Your task to perform on an android device: open a new tab in the chrome app Image 0: 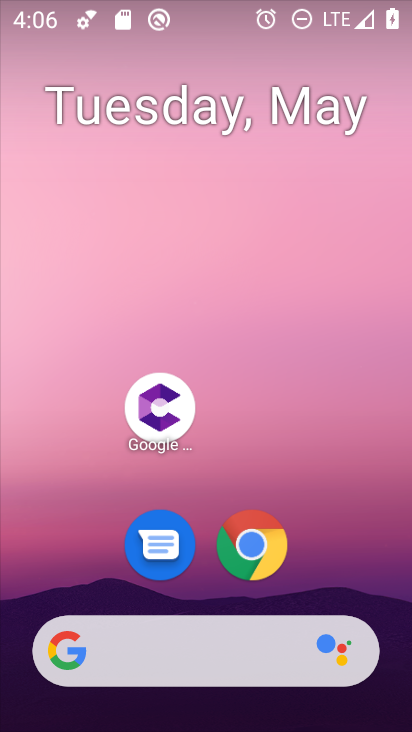
Step 0: drag from (348, 574) to (347, 135)
Your task to perform on an android device: open a new tab in the chrome app Image 1: 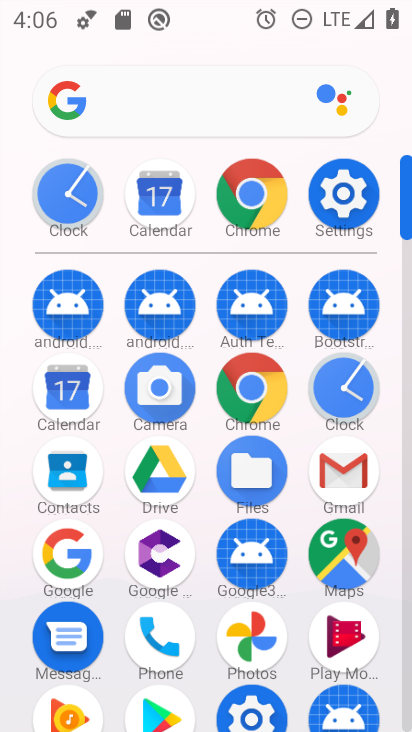
Step 1: click (248, 407)
Your task to perform on an android device: open a new tab in the chrome app Image 2: 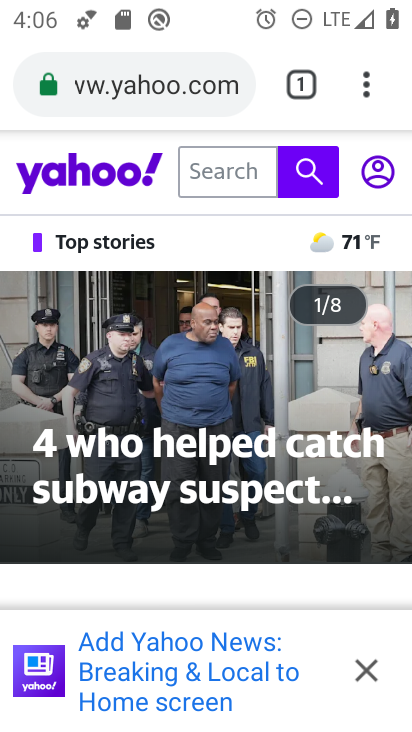
Step 2: click (365, 94)
Your task to perform on an android device: open a new tab in the chrome app Image 3: 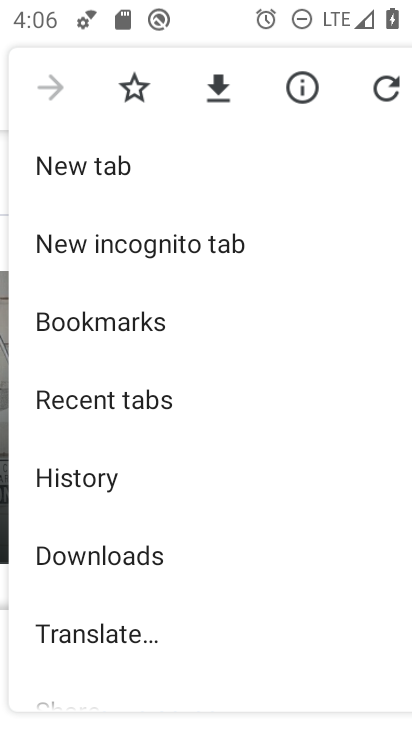
Step 3: drag from (300, 485) to (324, 362)
Your task to perform on an android device: open a new tab in the chrome app Image 4: 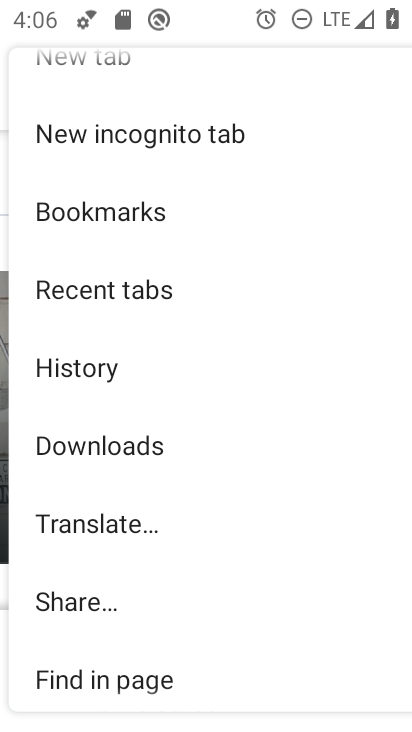
Step 4: drag from (294, 569) to (295, 482)
Your task to perform on an android device: open a new tab in the chrome app Image 5: 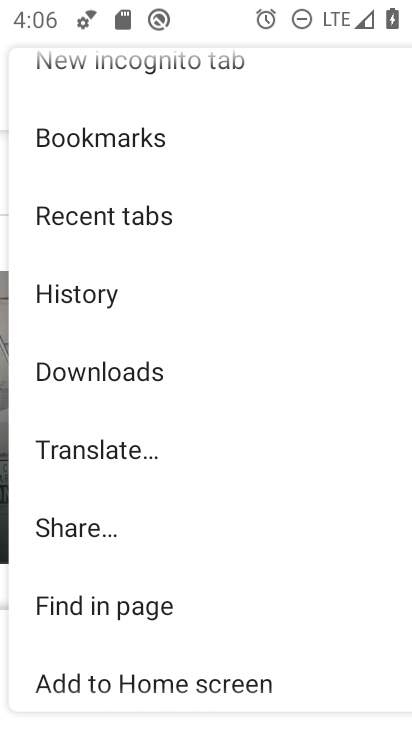
Step 5: drag from (269, 527) to (300, 404)
Your task to perform on an android device: open a new tab in the chrome app Image 6: 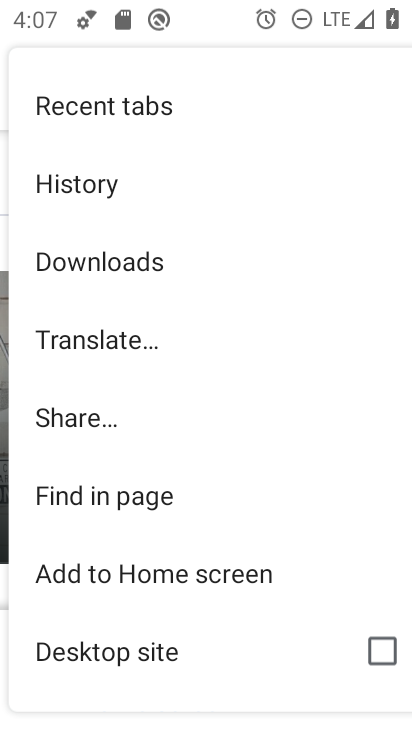
Step 6: drag from (295, 481) to (291, 379)
Your task to perform on an android device: open a new tab in the chrome app Image 7: 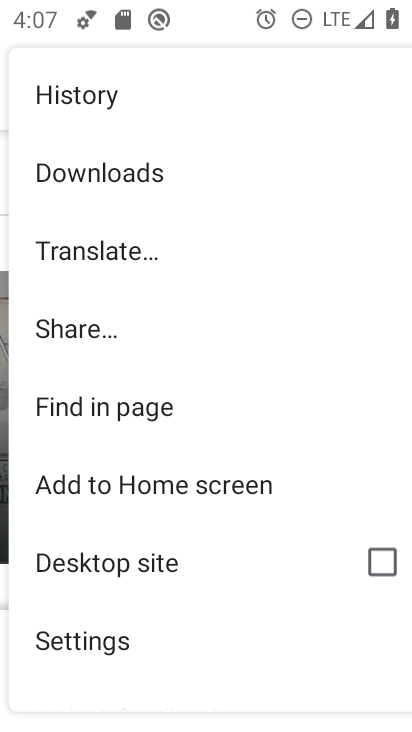
Step 7: drag from (318, 274) to (333, 481)
Your task to perform on an android device: open a new tab in the chrome app Image 8: 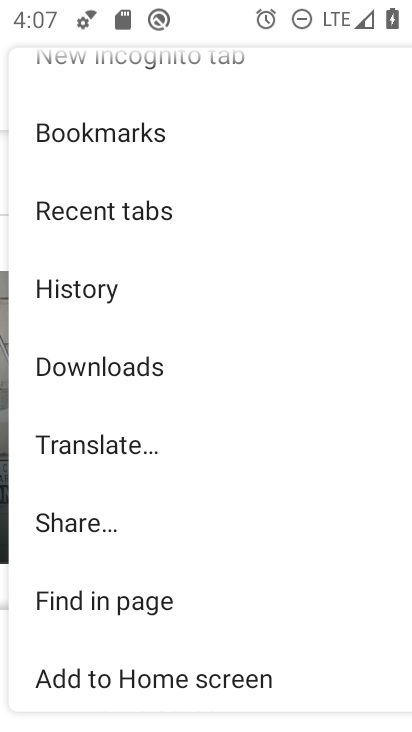
Step 8: drag from (323, 238) to (306, 417)
Your task to perform on an android device: open a new tab in the chrome app Image 9: 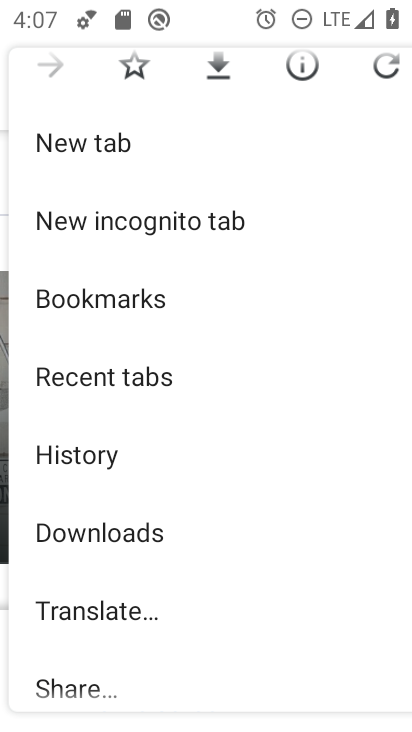
Step 9: drag from (290, 219) to (285, 293)
Your task to perform on an android device: open a new tab in the chrome app Image 10: 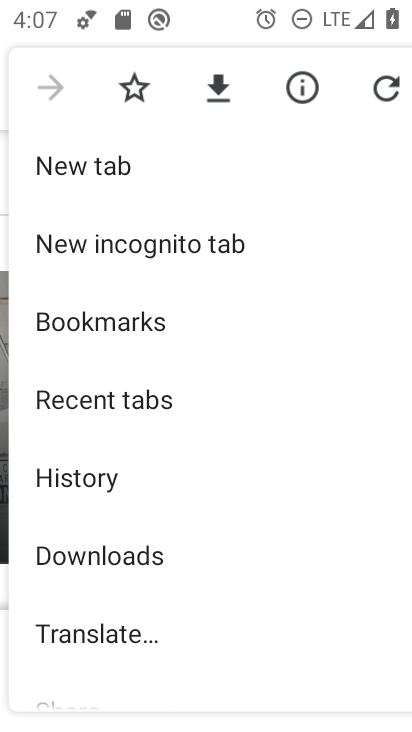
Step 10: drag from (323, 221) to (309, 392)
Your task to perform on an android device: open a new tab in the chrome app Image 11: 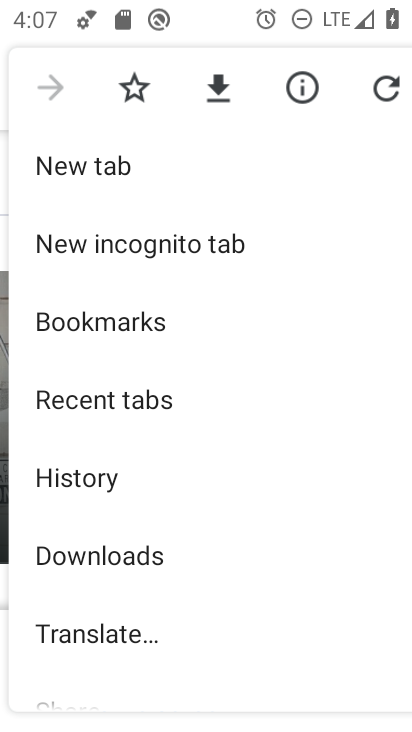
Step 11: click (96, 169)
Your task to perform on an android device: open a new tab in the chrome app Image 12: 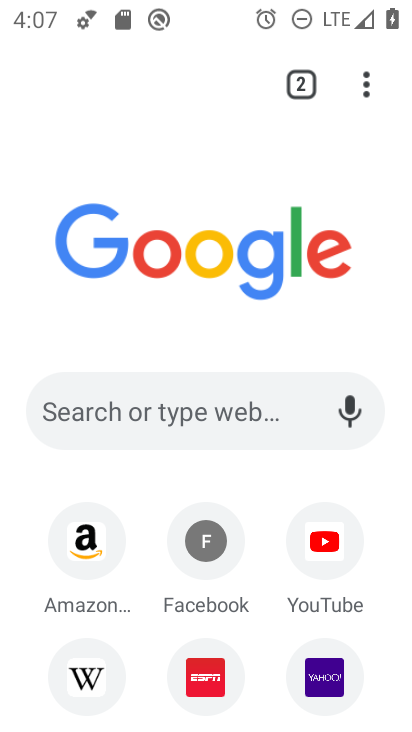
Step 12: task complete